Your task to perform on an android device: change the clock display to analog Image 0: 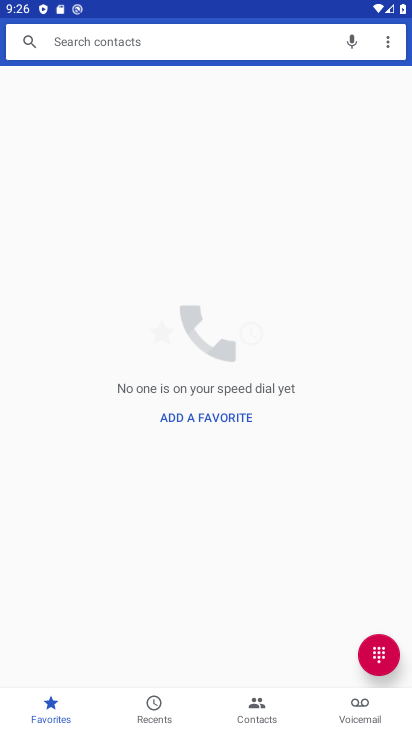
Step 0: task complete